Your task to perform on an android device: turn off notifications settings in the gmail app Image 0: 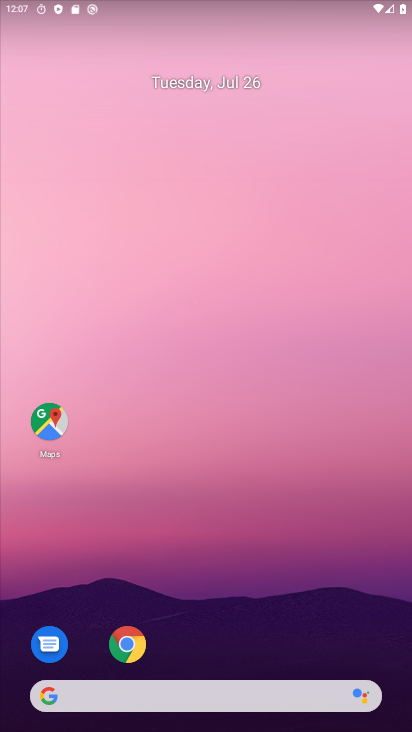
Step 0: drag from (234, 387) to (228, 5)
Your task to perform on an android device: turn off notifications settings in the gmail app Image 1: 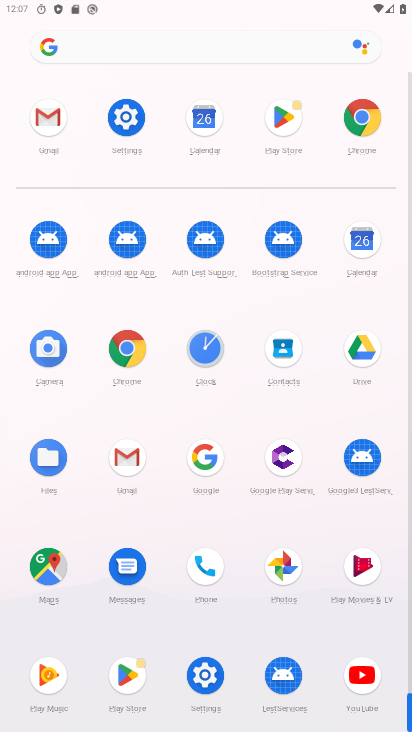
Step 1: click (53, 112)
Your task to perform on an android device: turn off notifications settings in the gmail app Image 2: 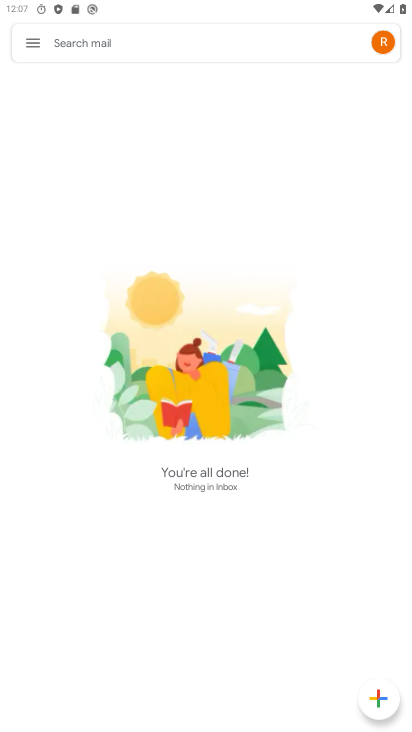
Step 2: click (38, 29)
Your task to perform on an android device: turn off notifications settings in the gmail app Image 3: 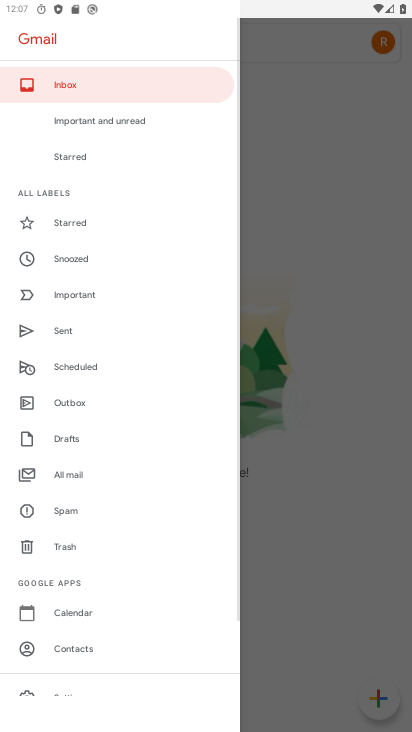
Step 3: drag from (106, 609) to (188, 14)
Your task to perform on an android device: turn off notifications settings in the gmail app Image 4: 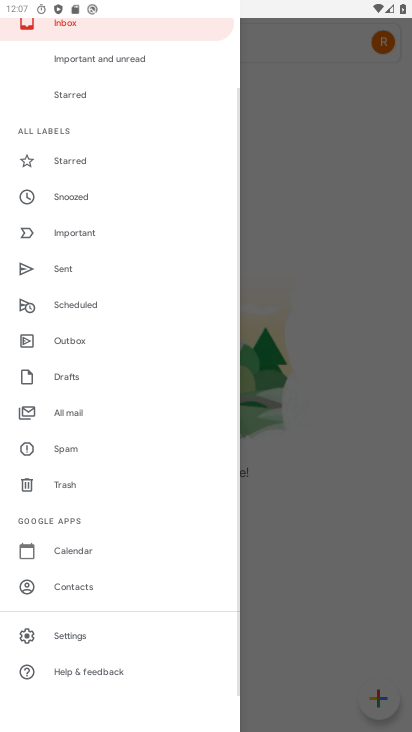
Step 4: click (74, 638)
Your task to perform on an android device: turn off notifications settings in the gmail app Image 5: 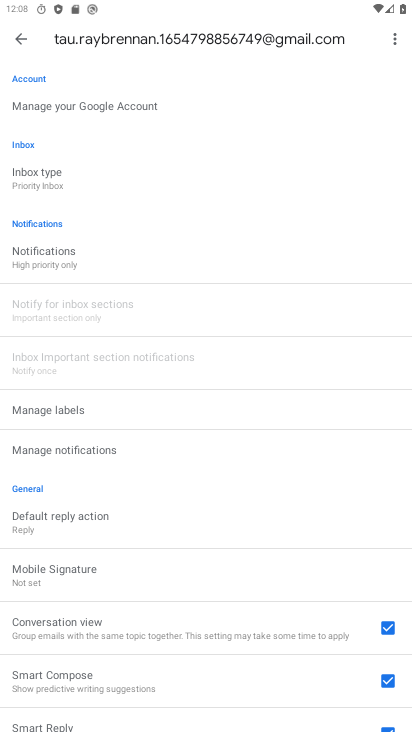
Step 5: click (33, 258)
Your task to perform on an android device: turn off notifications settings in the gmail app Image 6: 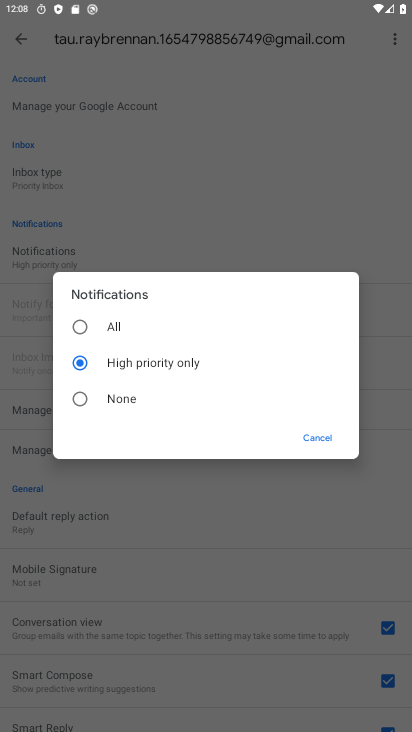
Step 6: click (85, 401)
Your task to perform on an android device: turn off notifications settings in the gmail app Image 7: 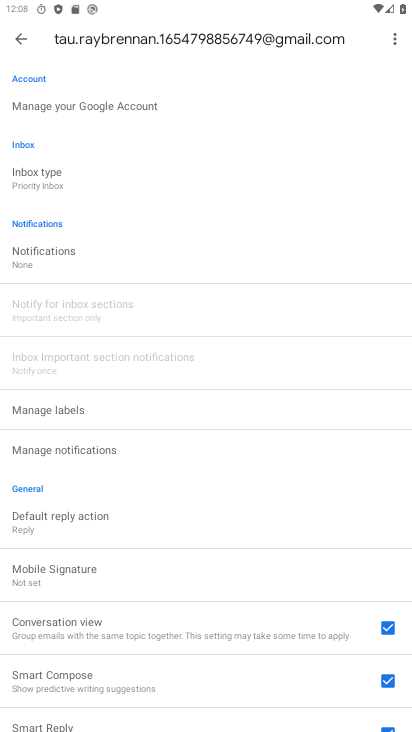
Step 7: task complete